Your task to perform on an android device: Open Google Maps Image 0: 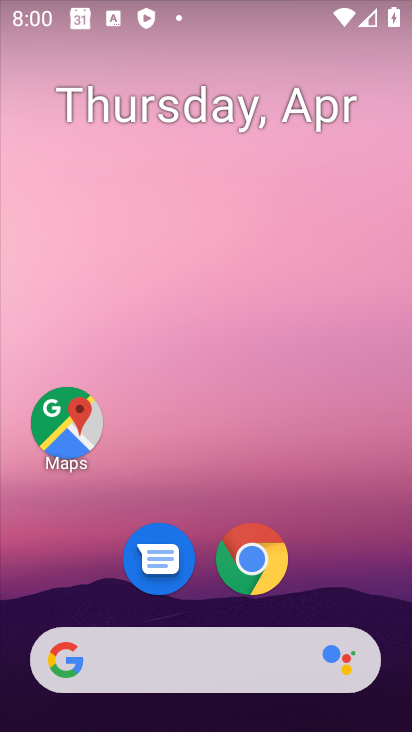
Step 0: click (309, 269)
Your task to perform on an android device: Open Google Maps Image 1: 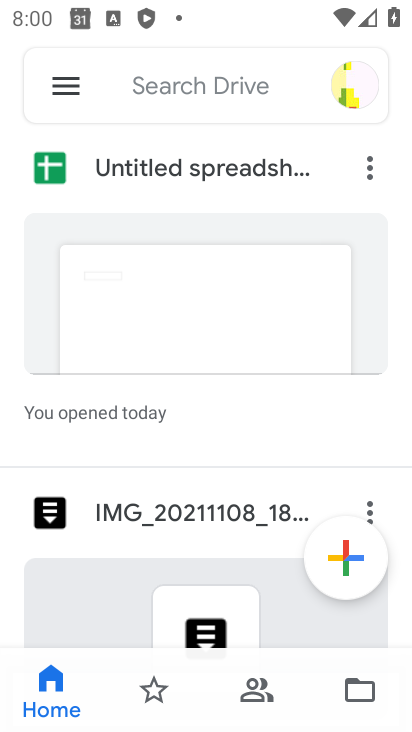
Step 1: press home button
Your task to perform on an android device: Open Google Maps Image 2: 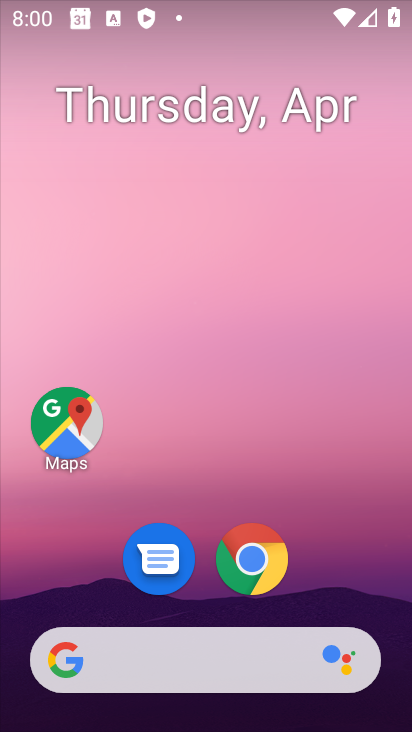
Step 2: click (59, 408)
Your task to perform on an android device: Open Google Maps Image 3: 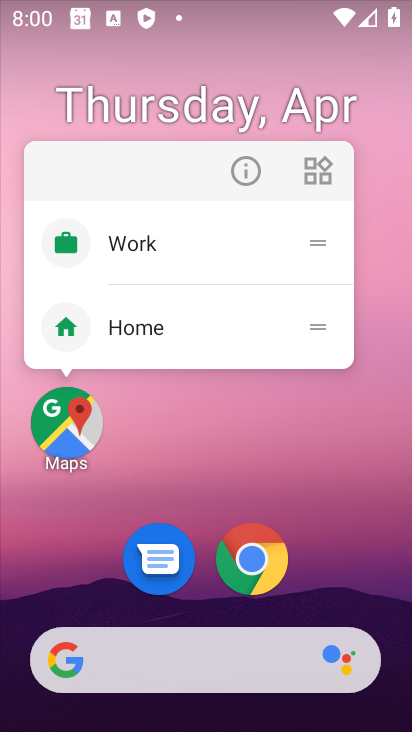
Step 3: click (59, 409)
Your task to perform on an android device: Open Google Maps Image 4: 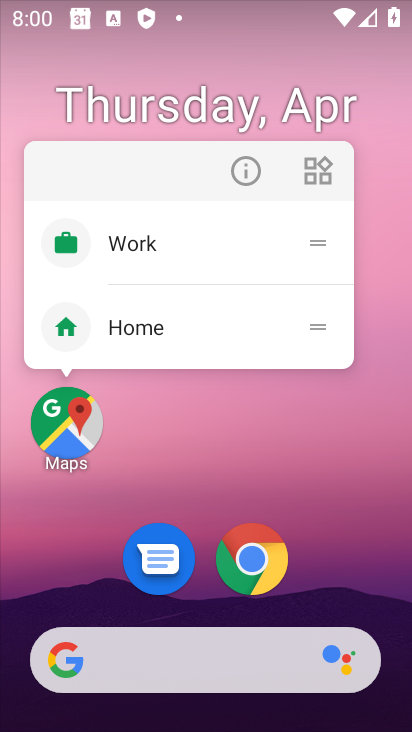
Step 4: click (59, 409)
Your task to perform on an android device: Open Google Maps Image 5: 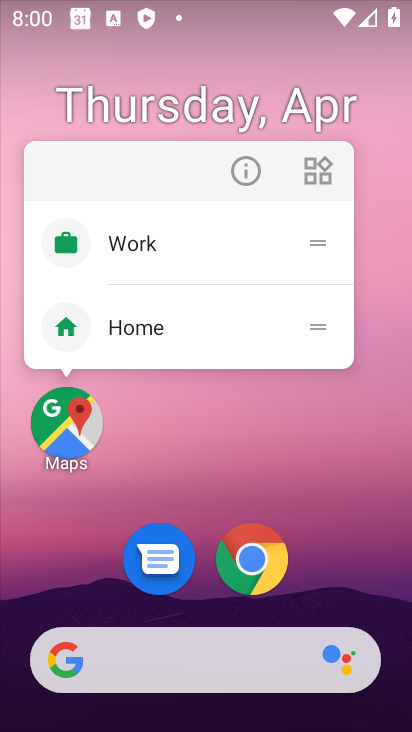
Step 5: click (59, 409)
Your task to perform on an android device: Open Google Maps Image 6: 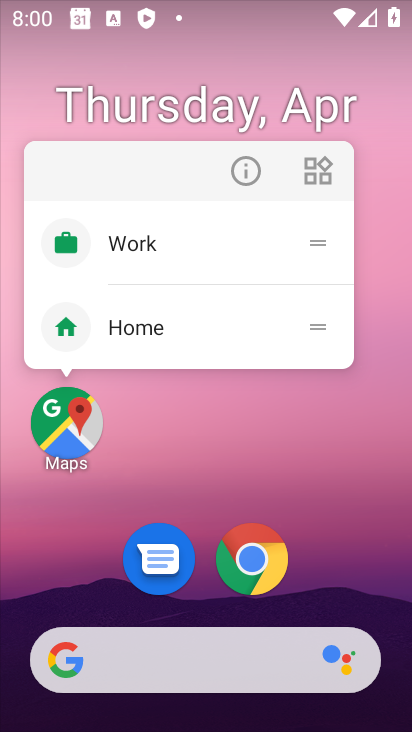
Step 6: click (59, 409)
Your task to perform on an android device: Open Google Maps Image 7: 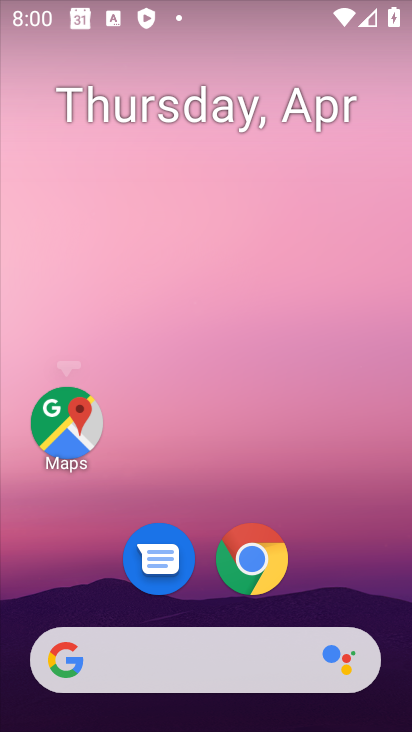
Step 7: click (59, 409)
Your task to perform on an android device: Open Google Maps Image 8: 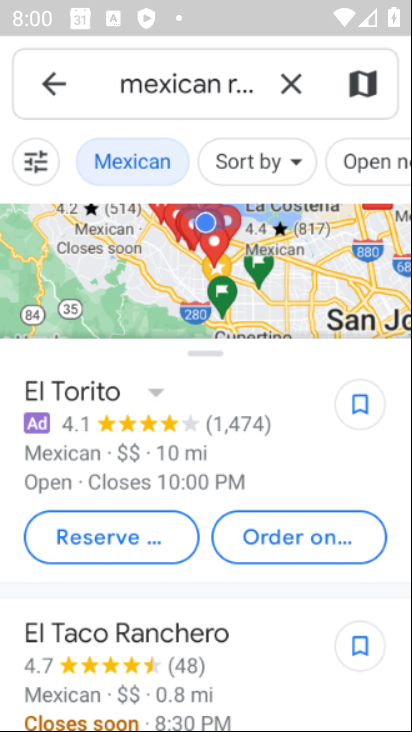
Step 8: click (59, 409)
Your task to perform on an android device: Open Google Maps Image 9: 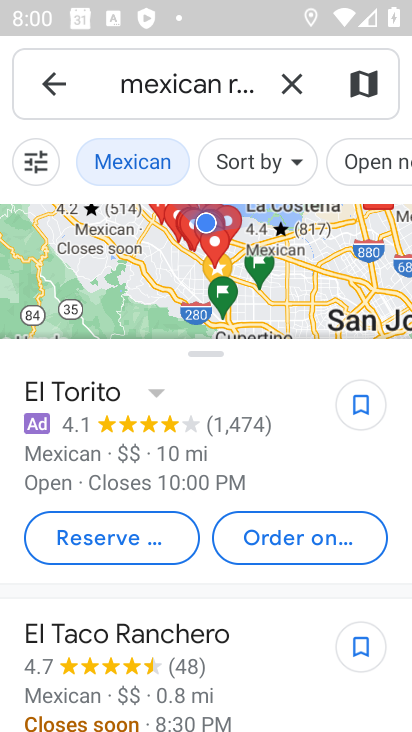
Step 9: click (290, 88)
Your task to perform on an android device: Open Google Maps Image 10: 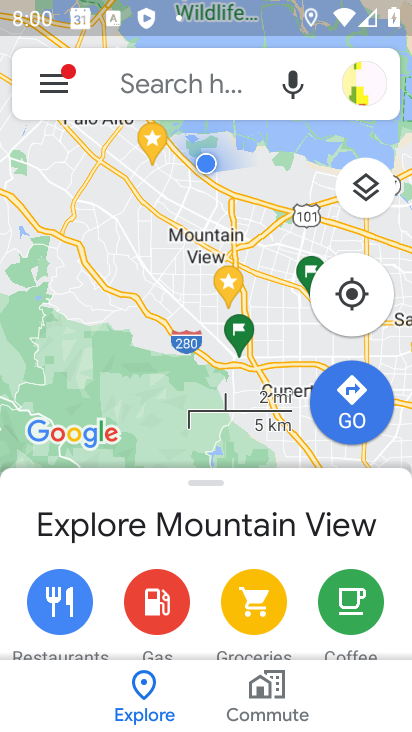
Step 10: task complete